Your task to perform on an android device: turn on showing notifications on the lock screen Image 0: 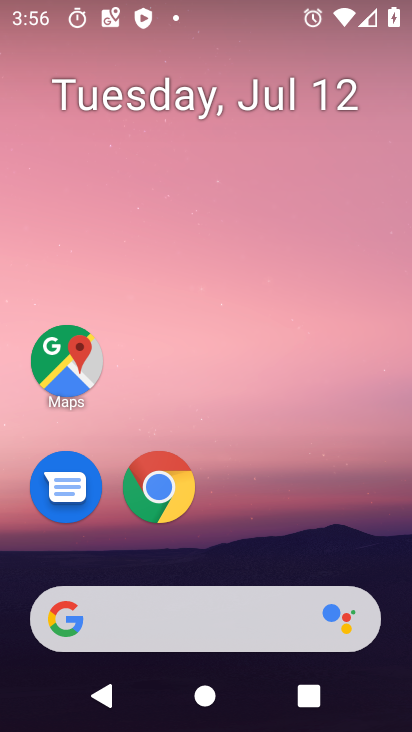
Step 0: drag from (218, 556) to (218, 228)
Your task to perform on an android device: turn on showing notifications on the lock screen Image 1: 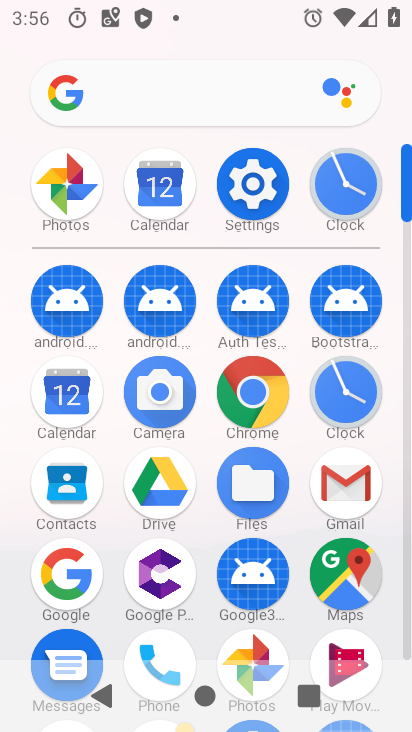
Step 1: click (251, 188)
Your task to perform on an android device: turn on showing notifications on the lock screen Image 2: 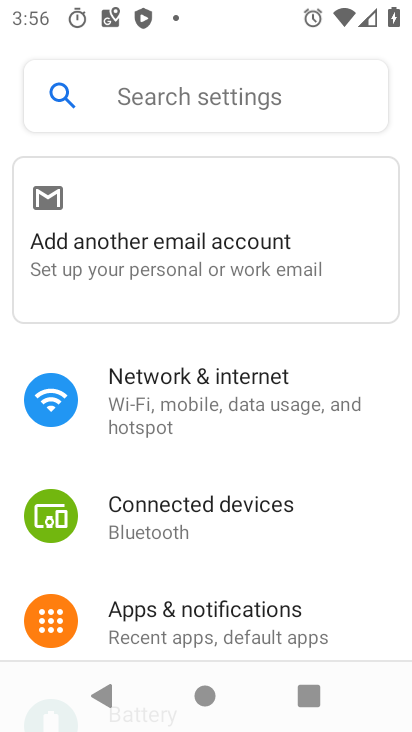
Step 2: drag from (178, 625) to (207, 324)
Your task to perform on an android device: turn on showing notifications on the lock screen Image 3: 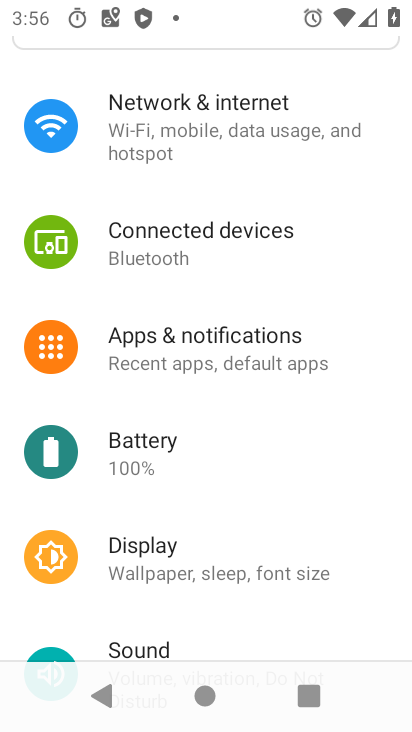
Step 3: click (203, 353)
Your task to perform on an android device: turn on showing notifications on the lock screen Image 4: 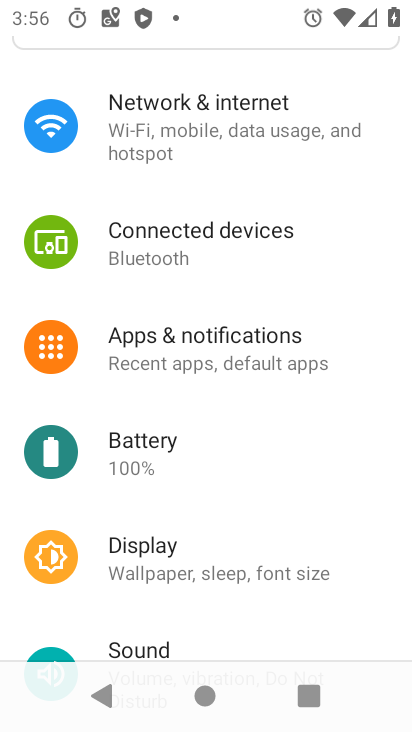
Step 4: click (209, 349)
Your task to perform on an android device: turn on showing notifications on the lock screen Image 5: 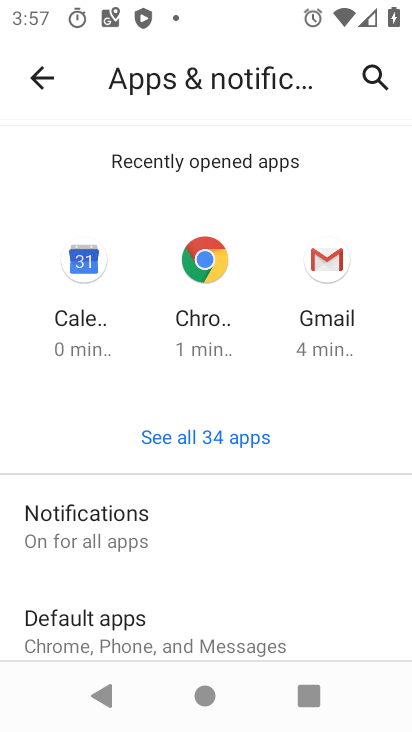
Step 5: drag from (158, 631) to (207, 303)
Your task to perform on an android device: turn on showing notifications on the lock screen Image 6: 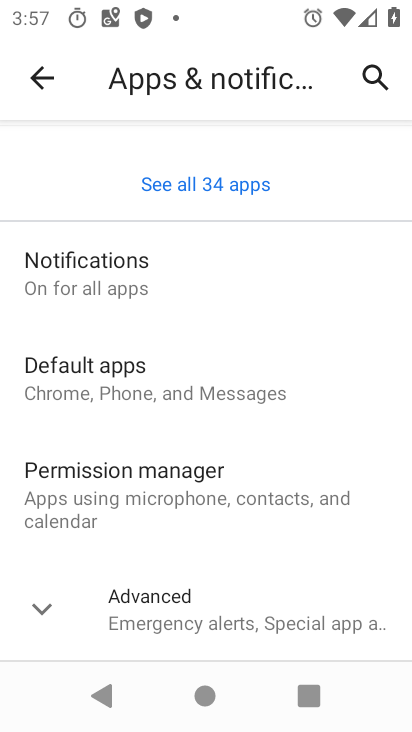
Step 6: click (55, 272)
Your task to perform on an android device: turn on showing notifications on the lock screen Image 7: 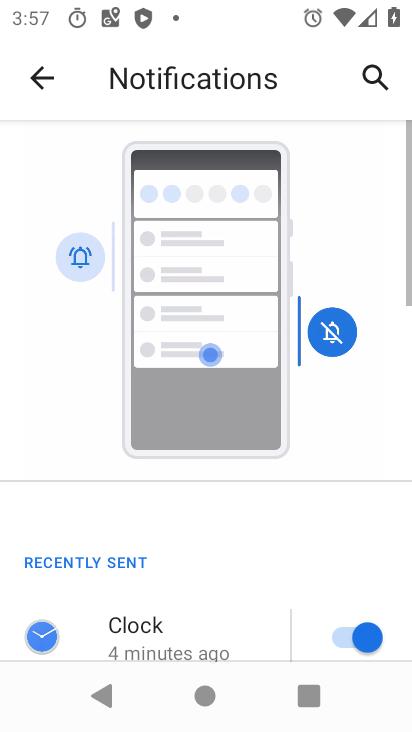
Step 7: drag from (143, 635) to (169, 210)
Your task to perform on an android device: turn on showing notifications on the lock screen Image 8: 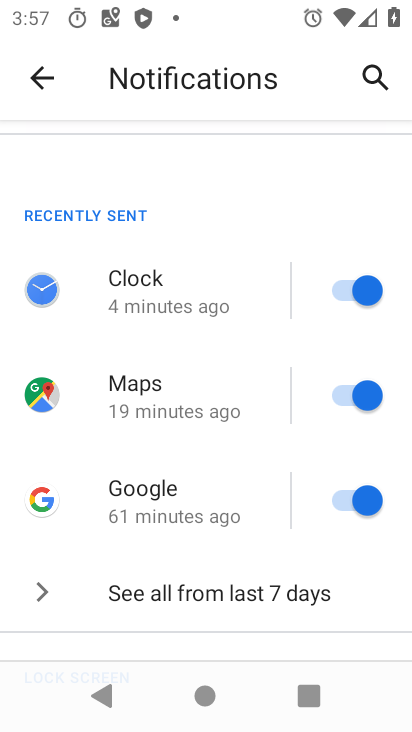
Step 8: drag from (167, 591) to (185, 328)
Your task to perform on an android device: turn on showing notifications on the lock screen Image 9: 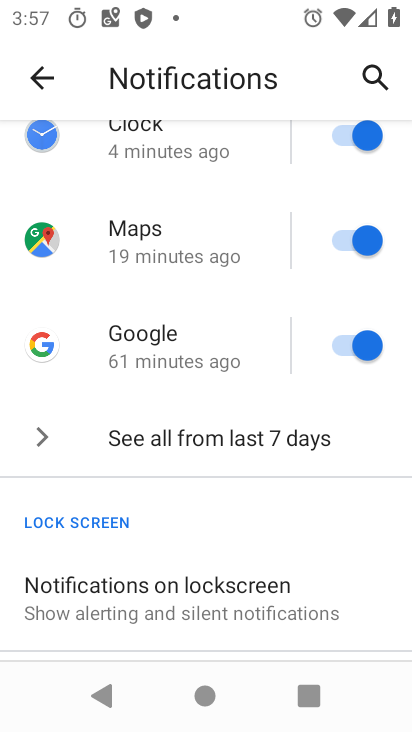
Step 9: click (150, 599)
Your task to perform on an android device: turn on showing notifications on the lock screen Image 10: 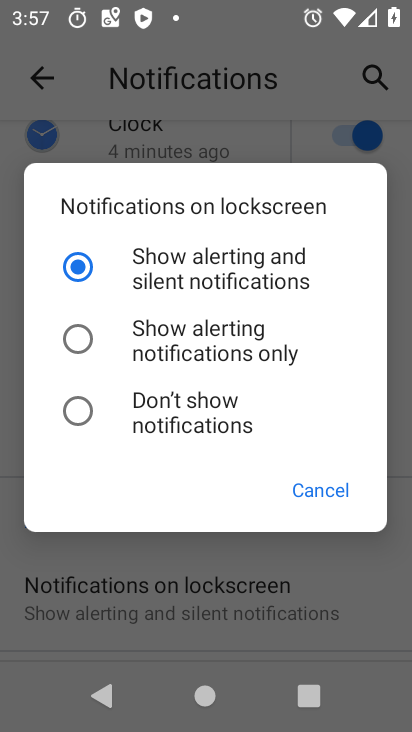
Step 10: task complete